Your task to perform on an android device: turn off picture-in-picture Image 0: 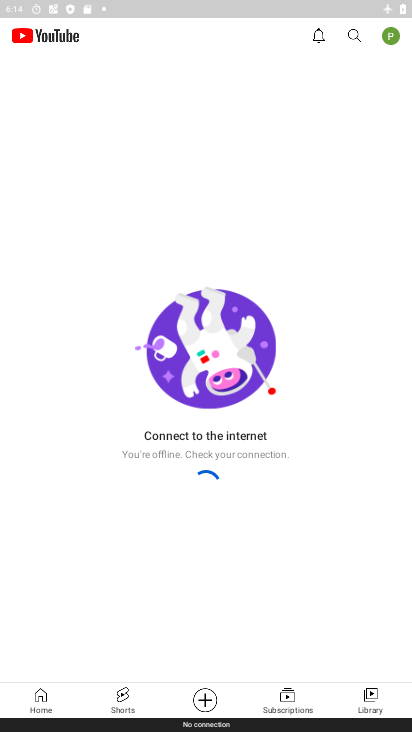
Step 0: press home button
Your task to perform on an android device: turn off picture-in-picture Image 1: 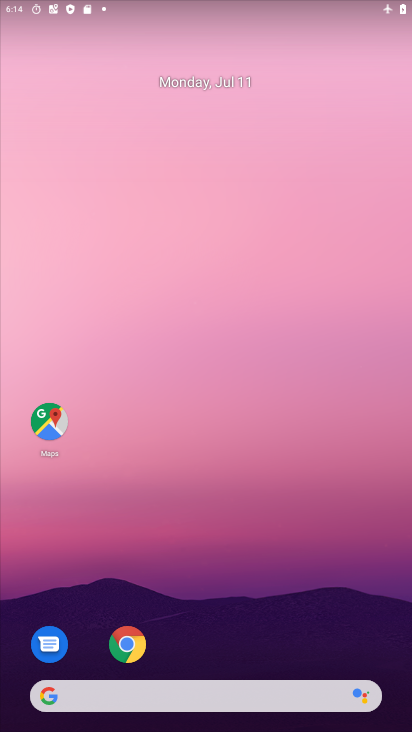
Step 1: drag from (176, 687) to (226, 2)
Your task to perform on an android device: turn off picture-in-picture Image 2: 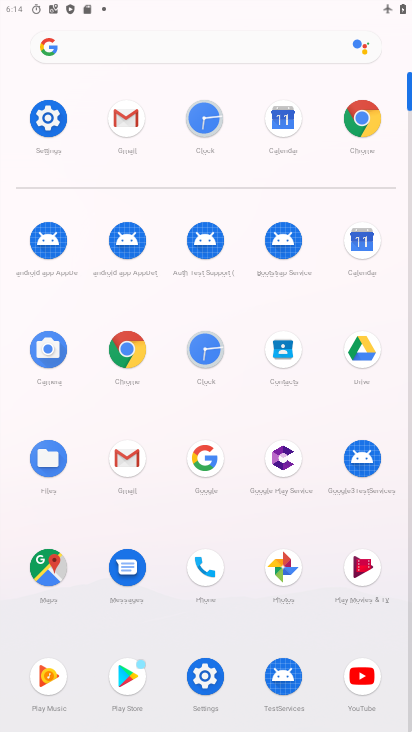
Step 2: click (37, 114)
Your task to perform on an android device: turn off picture-in-picture Image 3: 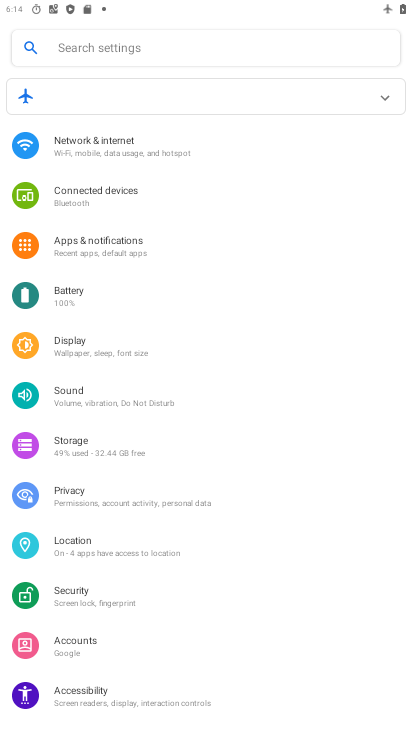
Step 3: click (109, 249)
Your task to perform on an android device: turn off picture-in-picture Image 4: 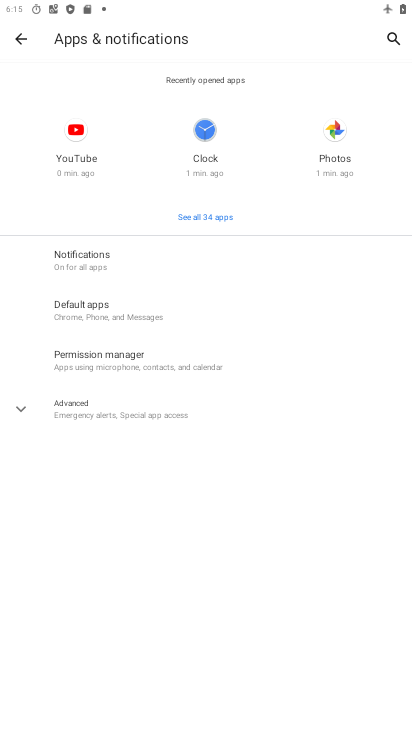
Step 4: click (103, 415)
Your task to perform on an android device: turn off picture-in-picture Image 5: 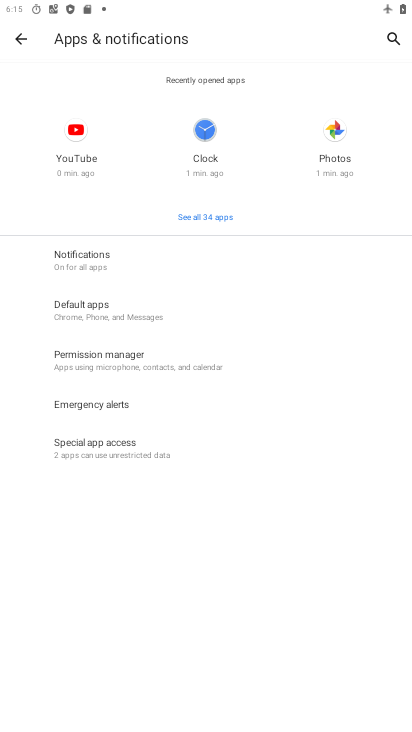
Step 5: click (98, 437)
Your task to perform on an android device: turn off picture-in-picture Image 6: 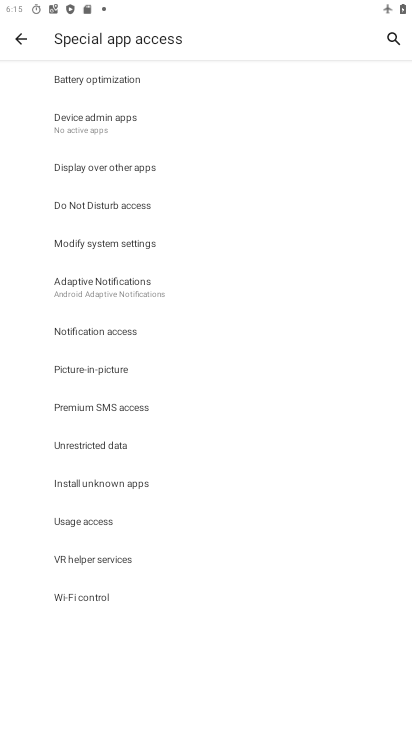
Step 6: click (105, 378)
Your task to perform on an android device: turn off picture-in-picture Image 7: 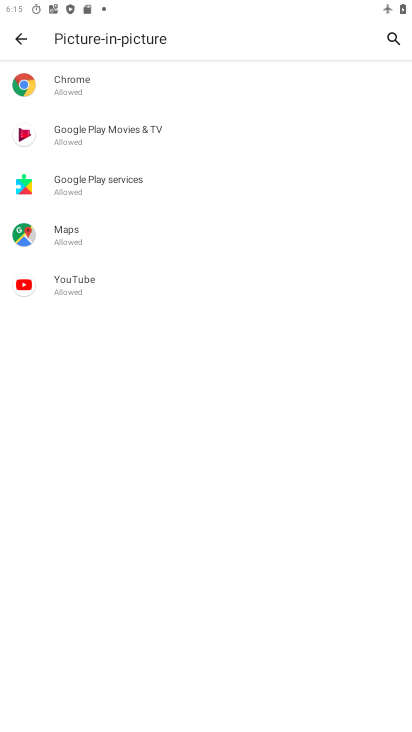
Step 7: click (80, 84)
Your task to perform on an android device: turn off picture-in-picture Image 8: 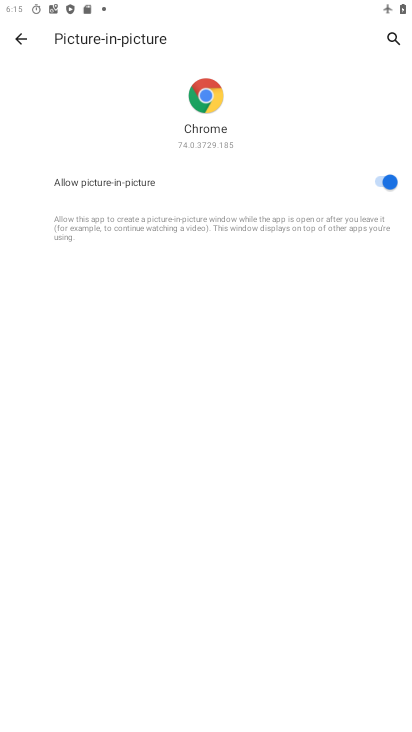
Step 8: click (384, 181)
Your task to perform on an android device: turn off picture-in-picture Image 9: 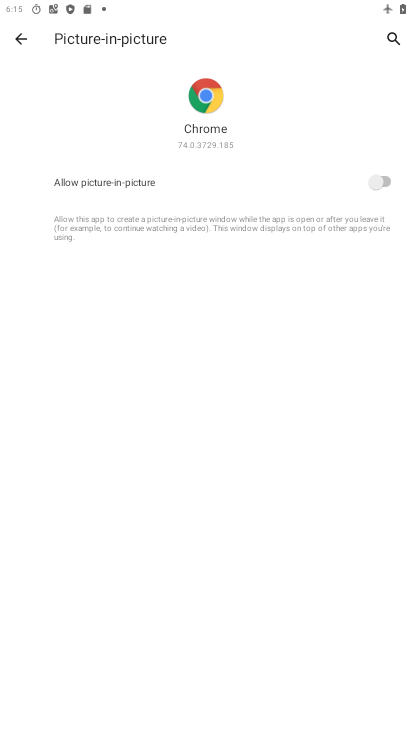
Step 9: press back button
Your task to perform on an android device: turn off picture-in-picture Image 10: 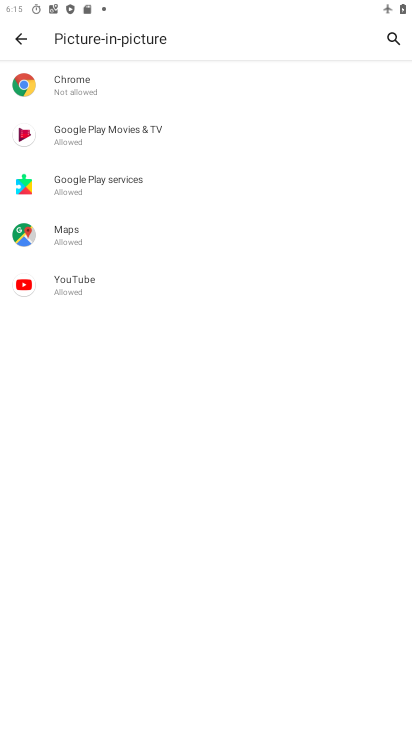
Step 10: click (110, 140)
Your task to perform on an android device: turn off picture-in-picture Image 11: 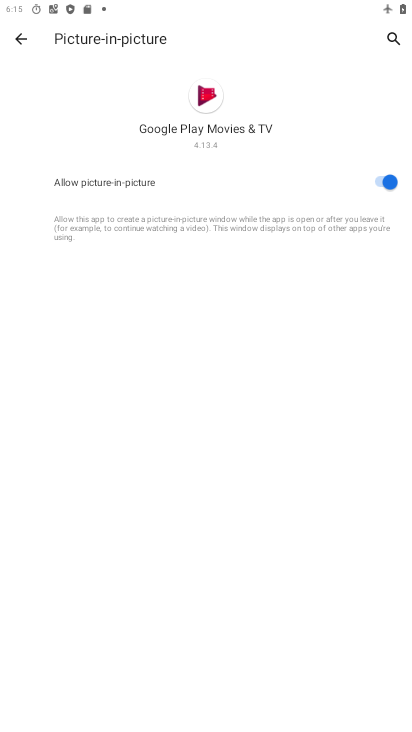
Step 11: click (379, 183)
Your task to perform on an android device: turn off picture-in-picture Image 12: 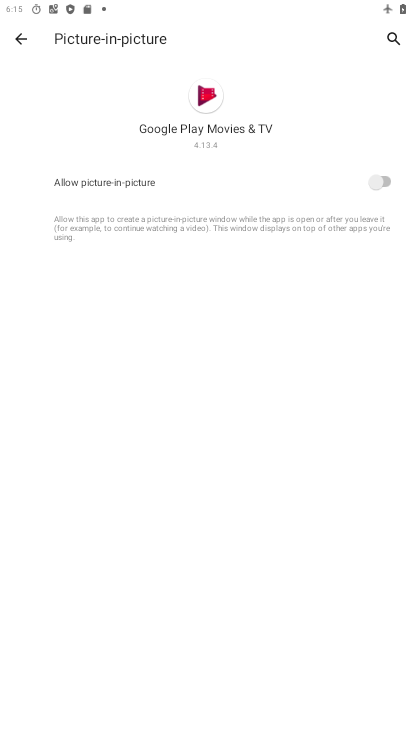
Step 12: press back button
Your task to perform on an android device: turn off picture-in-picture Image 13: 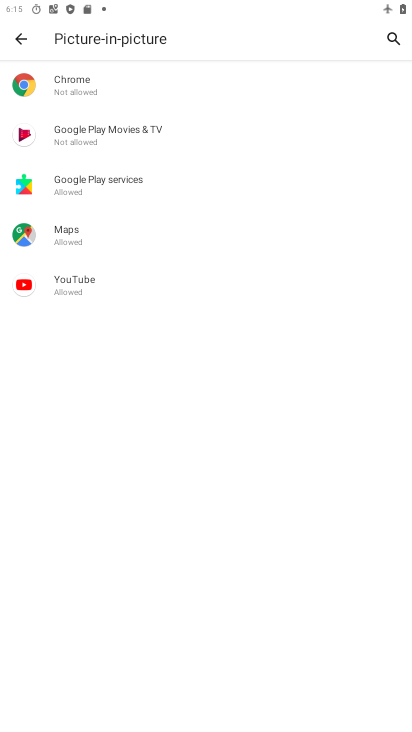
Step 13: click (151, 182)
Your task to perform on an android device: turn off picture-in-picture Image 14: 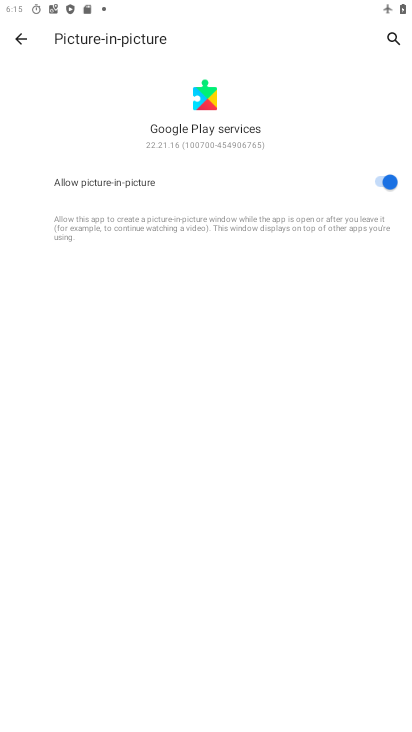
Step 14: click (382, 178)
Your task to perform on an android device: turn off picture-in-picture Image 15: 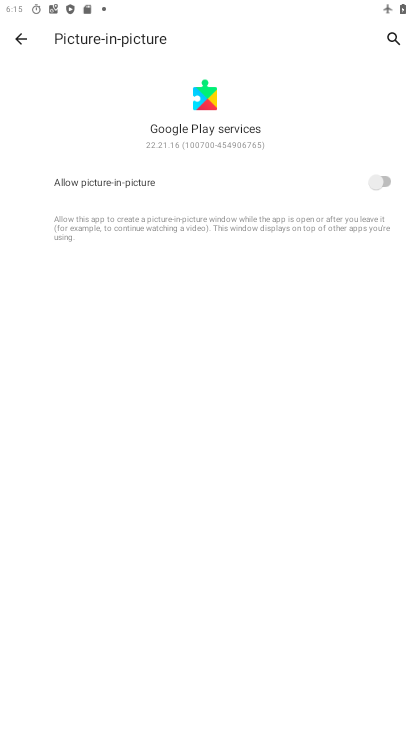
Step 15: press back button
Your task to perform on an android device: turn off picture-in-picture Image 16: 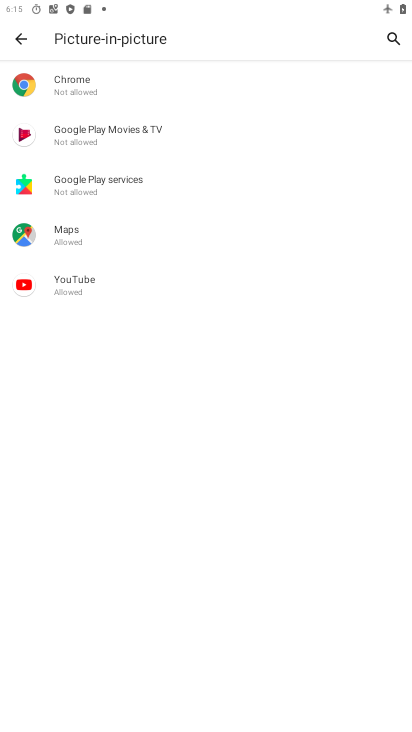
Step 16: click (133, 229)
Your task to perform on an android device: turn off picture-in-picture Image 17: 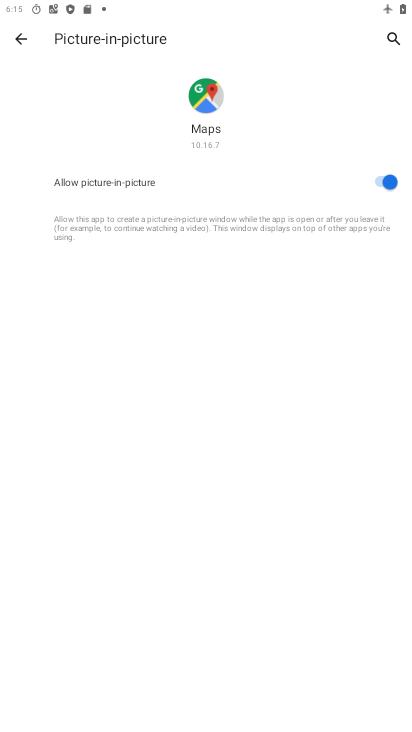
Step 17: click (376, 184)
Your task to perform on an android device: turn off picture-in-picture Image 18: 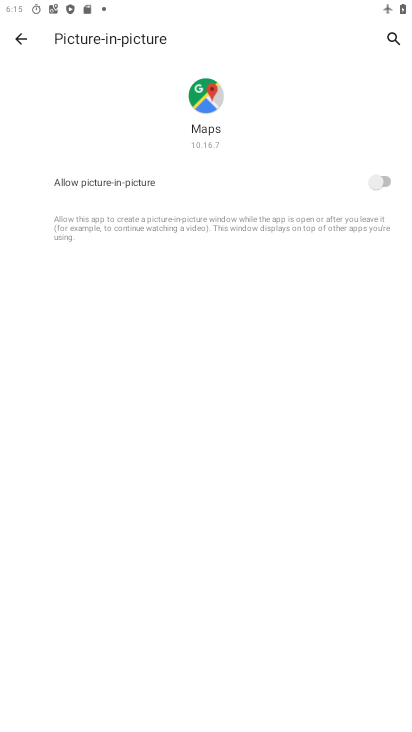
Step 18: press back button
Your task to perform on an android device: turn off picture-in-picture Image 19: 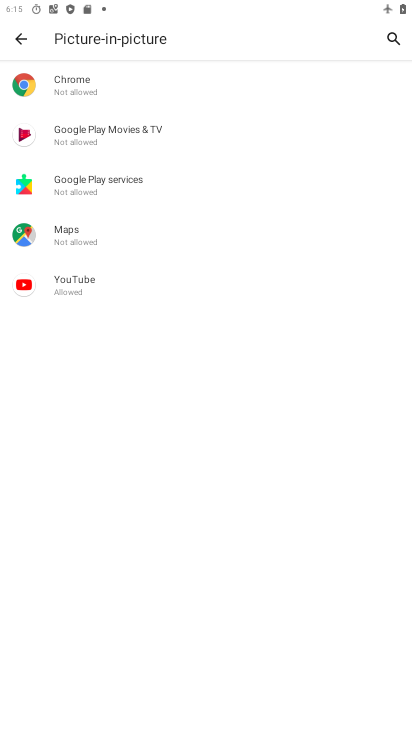
Step 19: click (82, 281)
Your task to perform on an android device: turn off picture-in-picture Image 20: 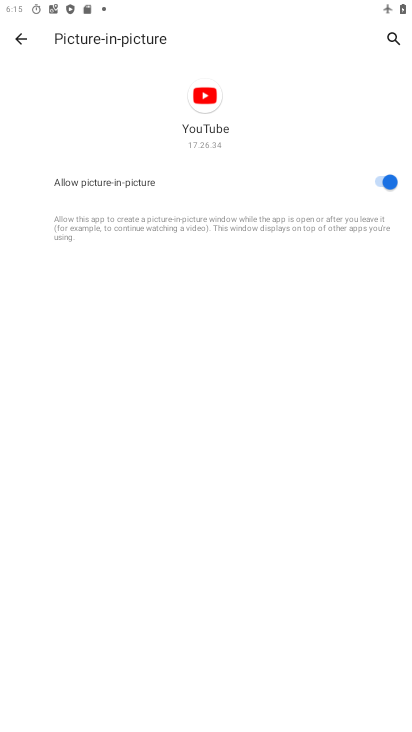
Step 20: click (379, 177)
Your task to perform on an android device: turn off picture-in-picture Image 21: 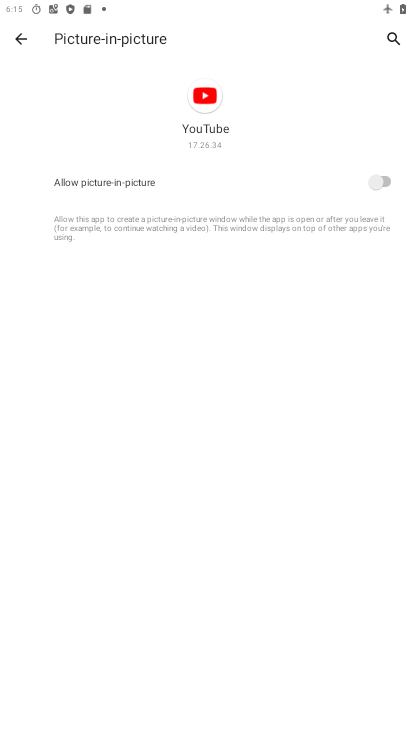
Step 21: task complete